Your task to perform on an android device: open device folders in google photos Image 0: 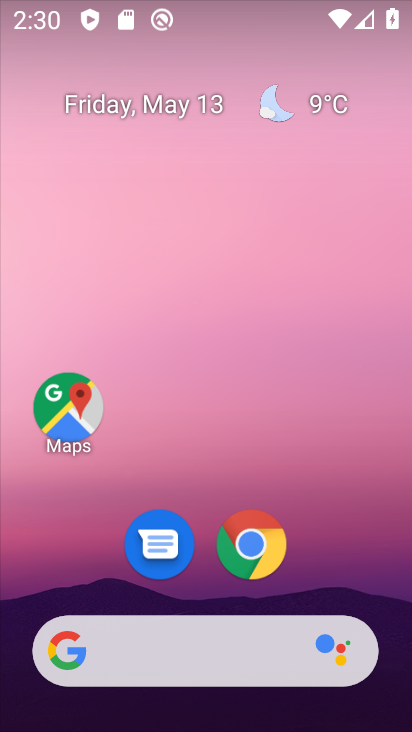
Step 0: click (266, 548)
Your task to perform on an android device: open device folders in google photos Image 1: 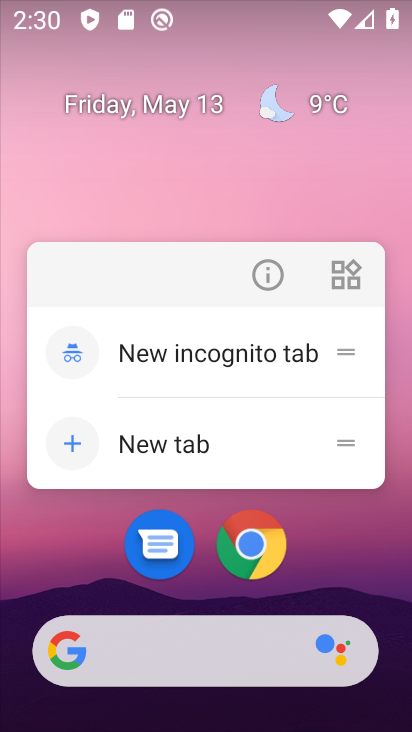
Step 1: click (266, 545)
Your task to perform on an android device: open device folders in google photos Image 2: 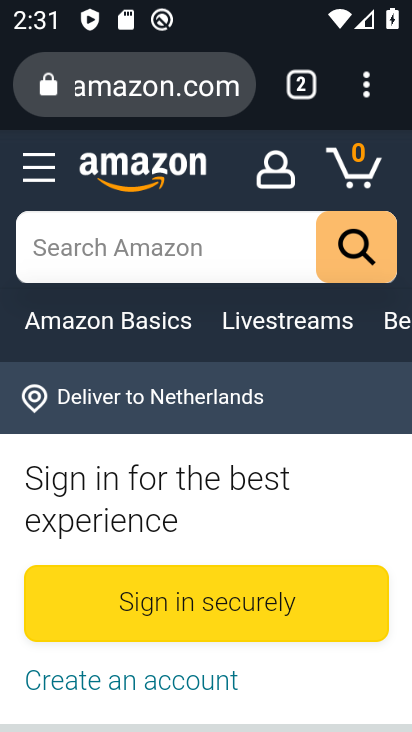
Step 2: press home button
Your task to perform on an android device: open device folders in google photos Image 3: 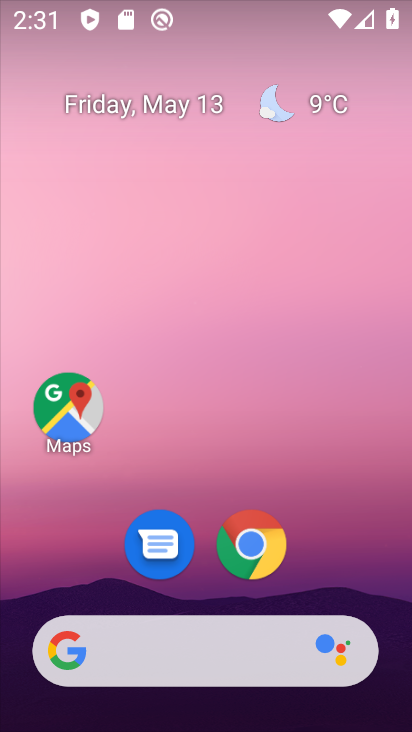
Step 3: drag from (109, 617) to (255, 173)
Your task to perform on an android device: open device folders in google photos Image 4: 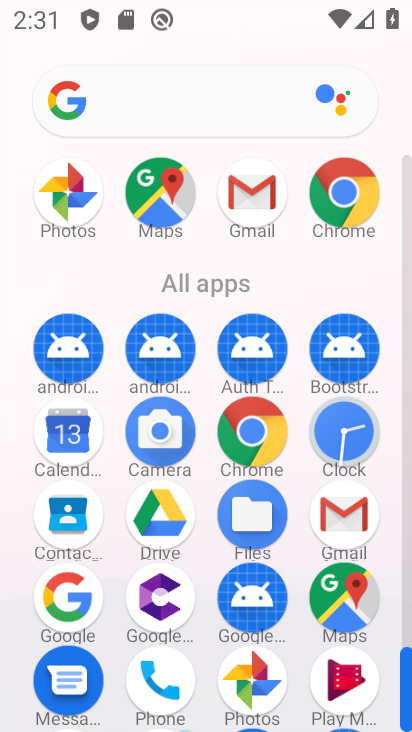
Step 4: drag from (223, 578) to (295, 370)
Your task to perform on an android device: open device folders in google photos Image 5: 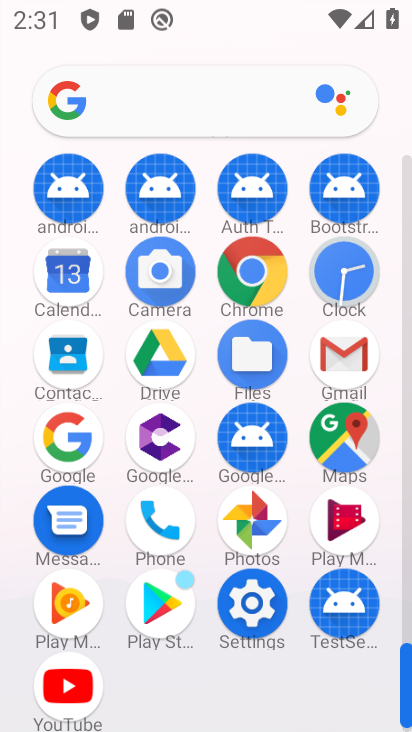
Step 5: click (259, 530)
Your task to perform on an android device: open device folders in google photos Image 6: 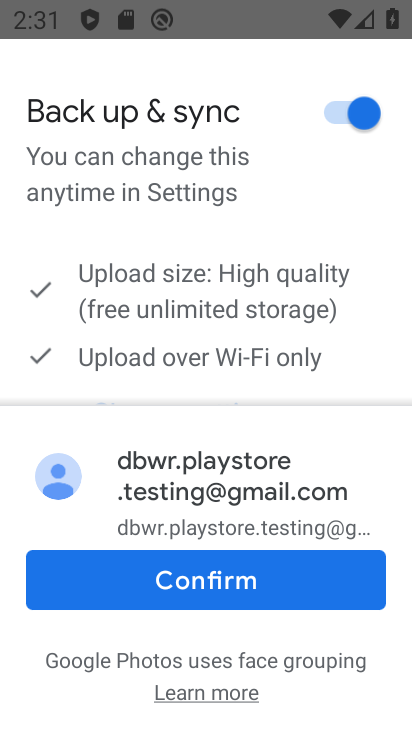
Step 6: click (245, 573)
Your task to perform on an android device: open device folders in google photos Image 7: 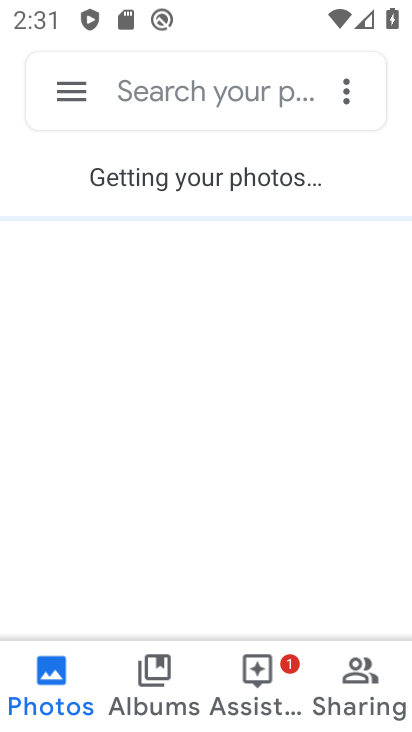
Step 7: click (84, 103)
Your task to perform on an android device: open device folders in google photos Image 8: 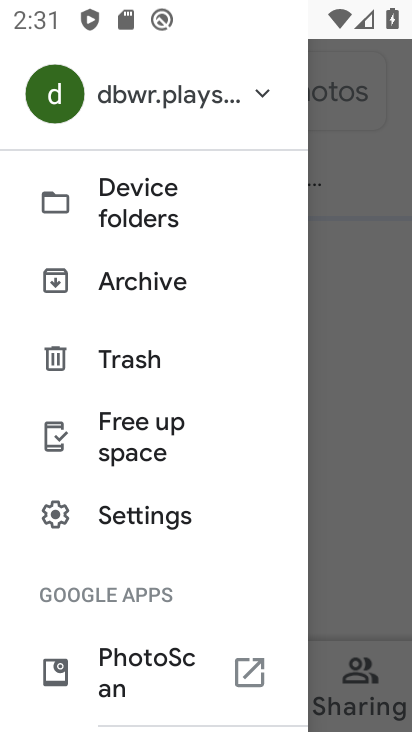
Step 8: click (189, 228)
Your task to perform on an android device: open device folders in google photos Image 9: 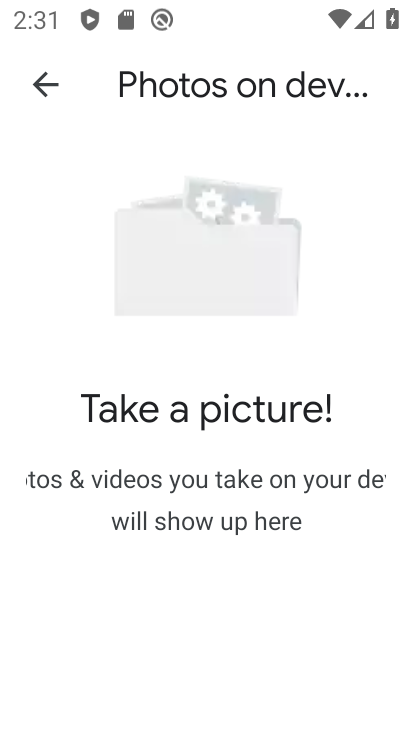
Step 9: task complete